Your task to perform on an android device: toggle translation in the chrome app Image 0: 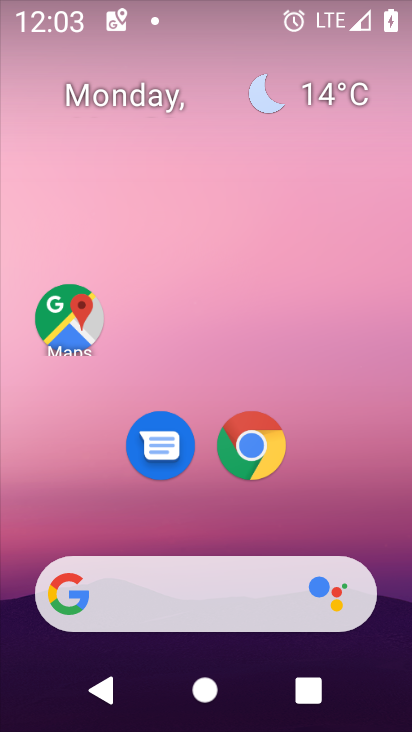
Step 0: drag from (220, 527) to (272, 90)
Your task to perform on an android device: toggle translation in the chrome app Image 1: 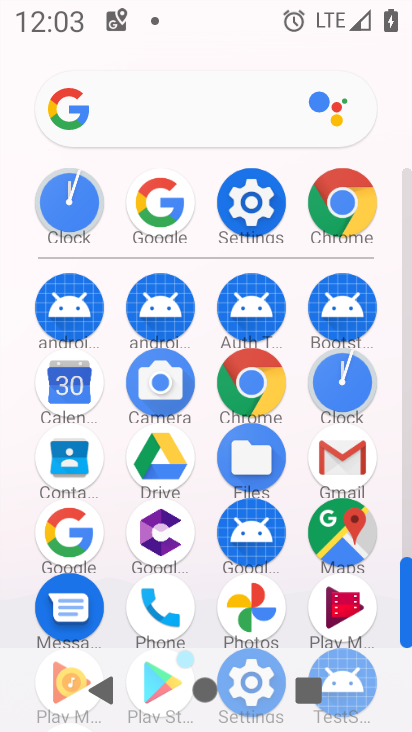
Step 1: click (251, 381)
Your task to perform on an android device: toggle translation in the chrome app Image 2: 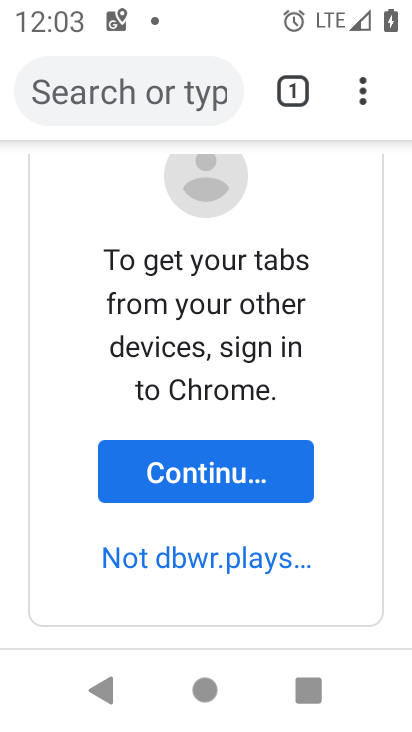
Step 2: drag from (237, 267) to (232, 653)
Your task to perform on an android device: toggle translation in the chrome app Image 3: 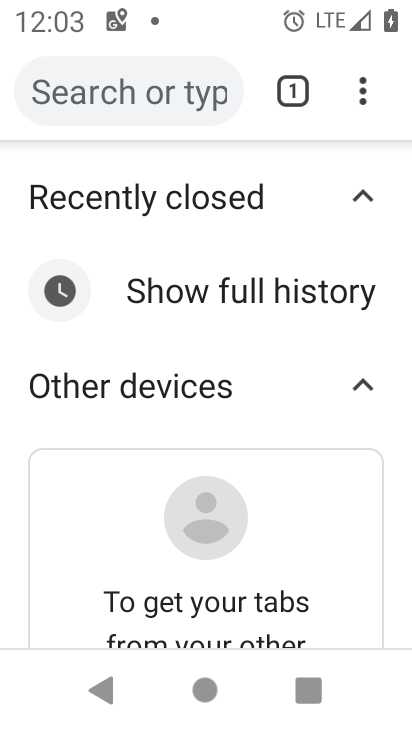
Step 3: drag from (365, 84) to (158, 473)
Your task to perform on an android device: toggle translation in the chrome app Image 4: 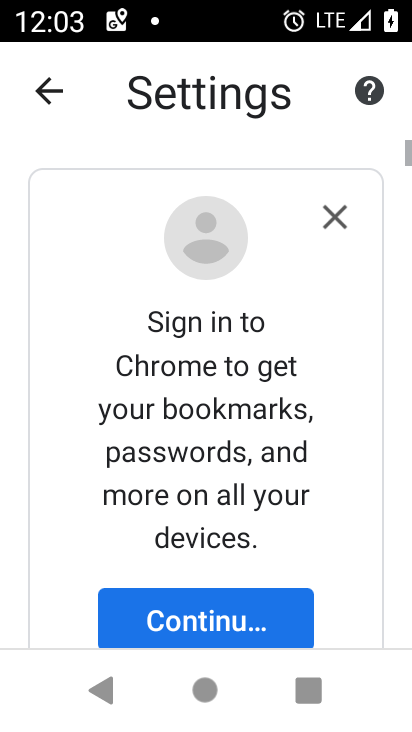
Step 4: drag from (246, 533) to (359, 23)
Your task to perform on an android device: toggle translation in the chrome app Image 5: 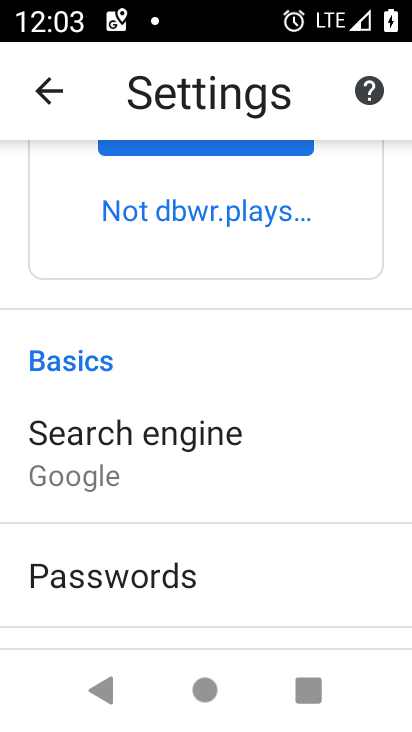
Step 5: drag from (222, 527) to (351, 79)
Your task to perform on an android device: toggle translation in the chrome app Image 6: 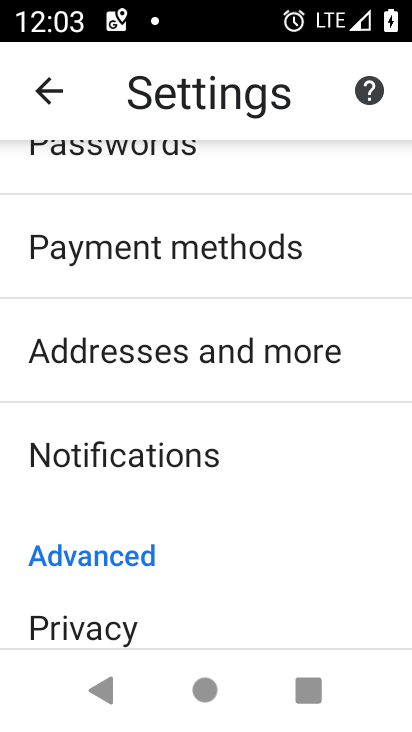
Step 6: drag from (236, 475) to (333, 101)
Your task to perform on an android device: toggle translation in the chrome app Image 7: 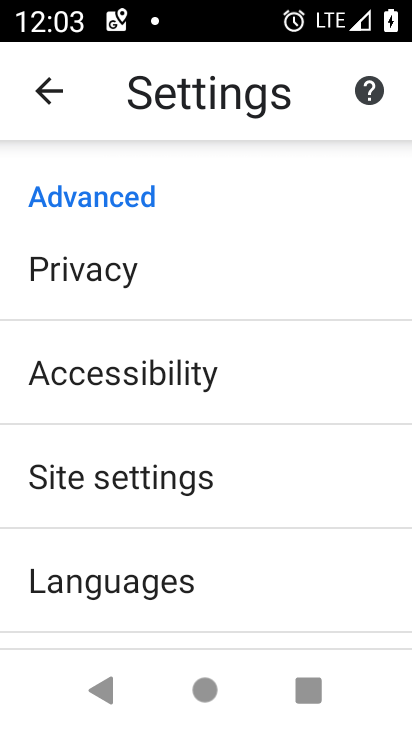
Step 7: click (190, 567)
Your task to perform on an android device: toggle translation in the chrome app Image 8: 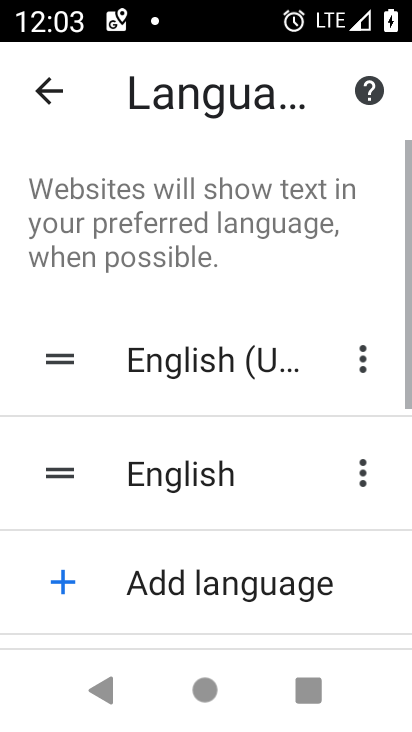
Step 8: drag from (191, 567) to (371, 17)
Your task to perform on an android device: toggle translation in the chrome app Image 9: 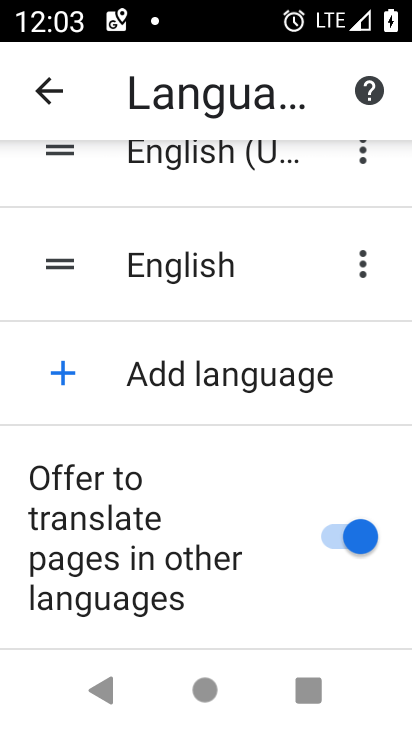
Step 9: click (337, 537)
Your task to perform on an android device: toggle translation in the chrome app Image 10: 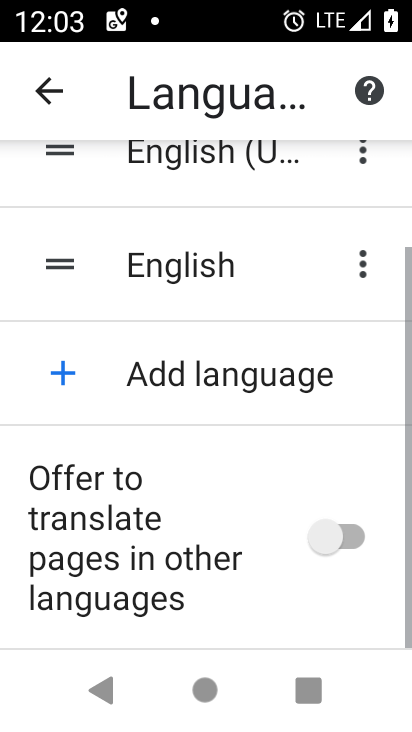
Step 10: task complete